Your task to perform on an android device: Go to wifi settings Image 0: 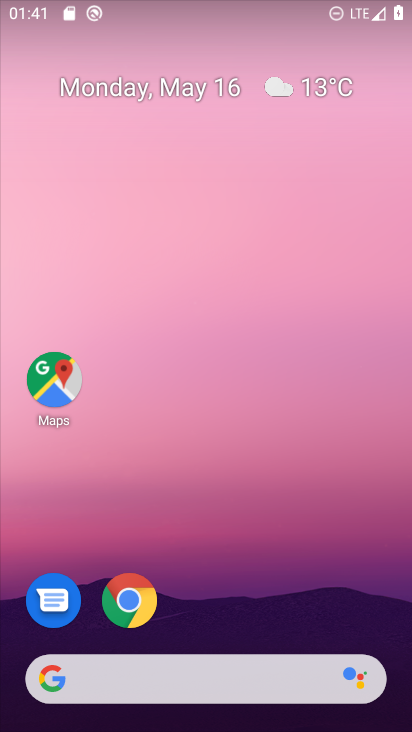
Step 0: drag from (210, 637) to (208, 24)
Your task to perform on an android device: Go to wifi settings Image 1: 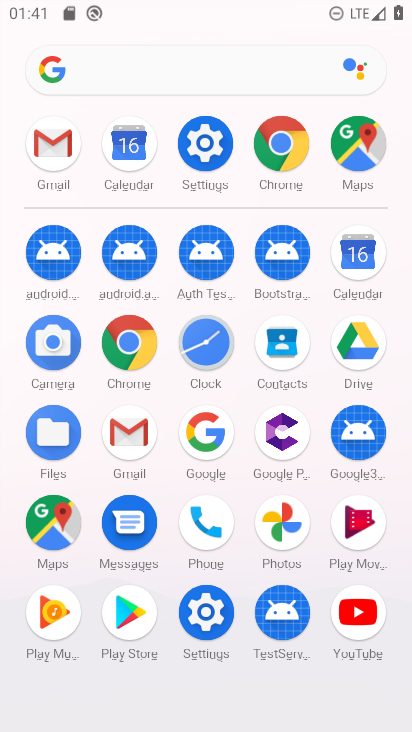
Step 1: click (204, 137)
Your task to perform on an android device: Go to wifi settings Image 2: 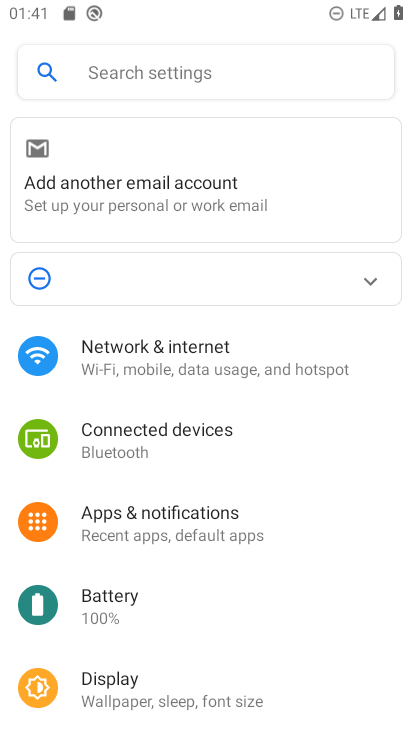
Step 2: click (245, 350)
Your task to perform on an android device: Go to wifi settings Image 3: 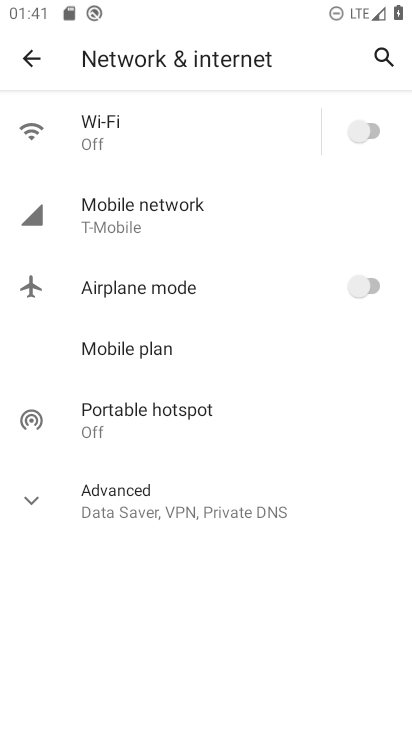
Step 3: click (150, 130)
Your task to perform on an android device: Go to wifi settings Image 4: 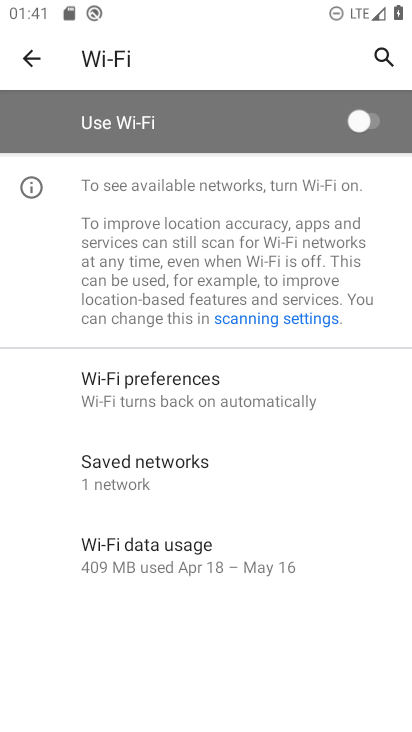
Step 4: click (369, 125)
Your task to perform on an android device: Go to wifi settings Image 5: 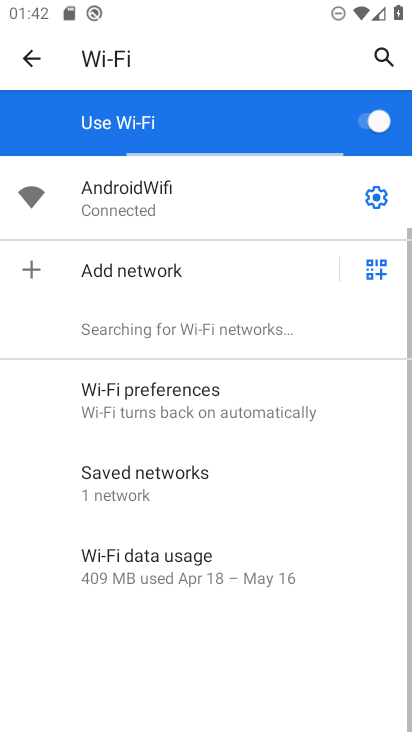
Step 5: task complete